Your task to perform on an android device: toggle notification dots Image 0: 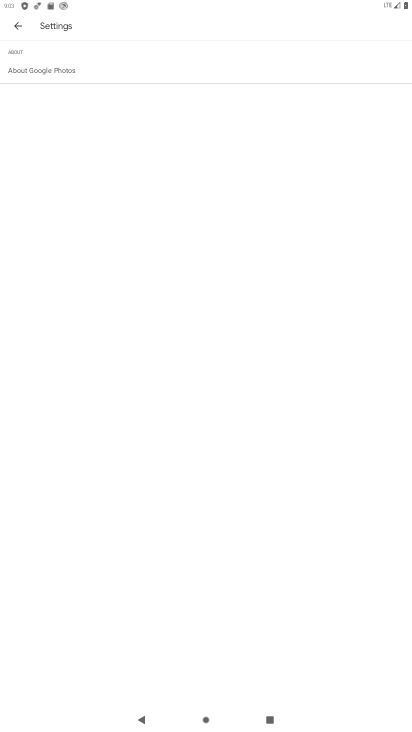
Step 0: press home button
Your task to perform on an android device: toggle notification dots Image 1: 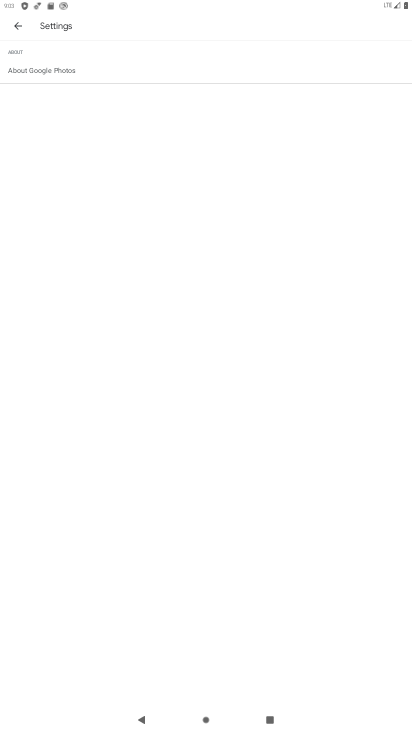
Step 1: press home button
Your task to perform on an android device: toggle notification dots Image 2: 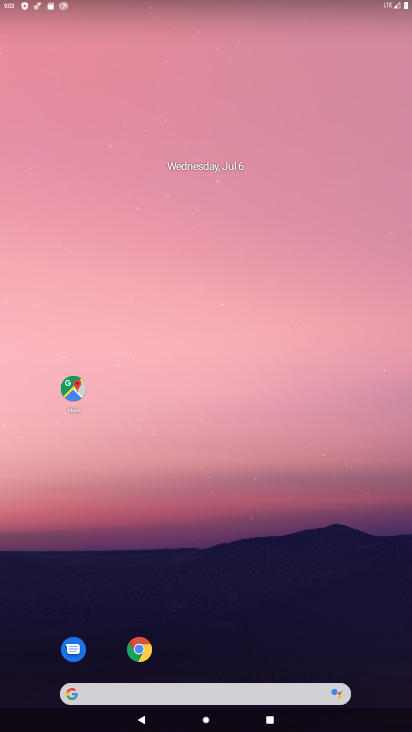
Step 2: drag from (188, 672) to (189, 183)
Your task to perform on an android device: toggle notification dots Image 3: 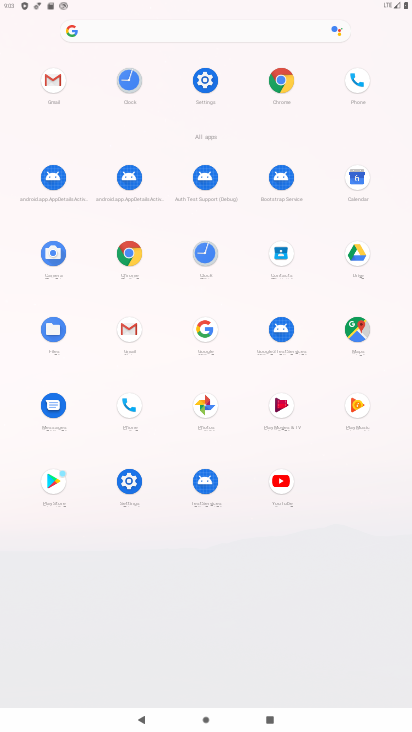
Step 3: click (200, 76)
Your task to perform on an android device: toggle notification dots Image 4: 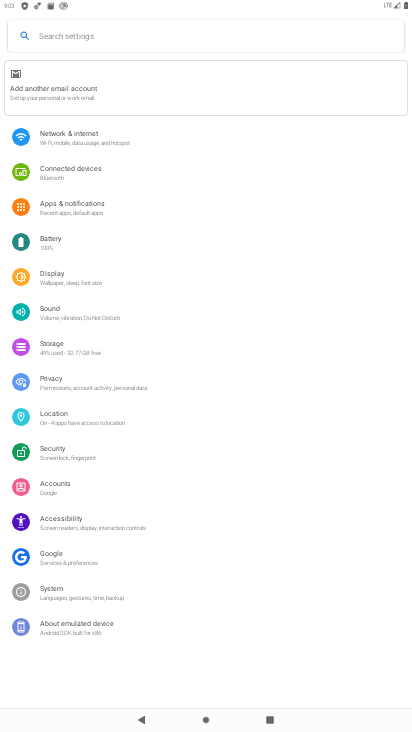
Step 4: click (70, 210)
Your task to perform on an android device: toggle notification dots Image 5: 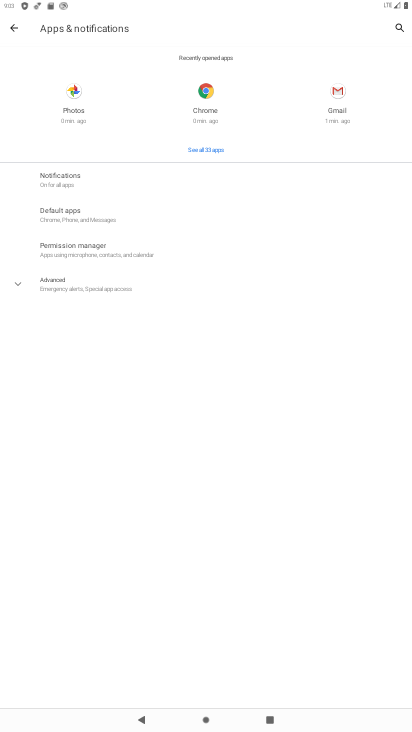
Step 5: click (55, 181)
Your task to perform on an android device: toggle notification dots Image 6: 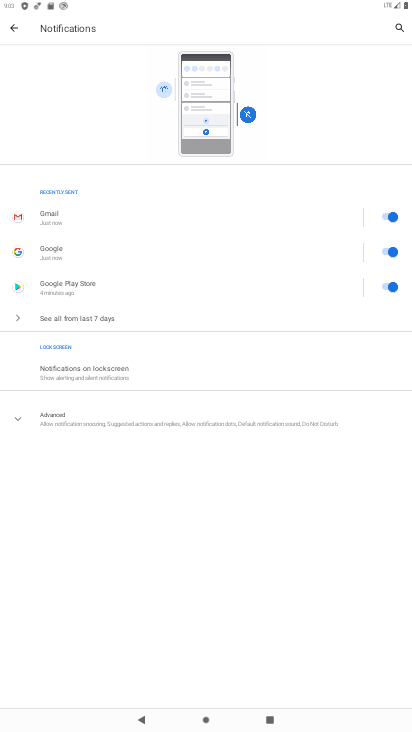
Step 6: click (131, 419)
Your task to perform on an android device: toggle notification dots Image 7: 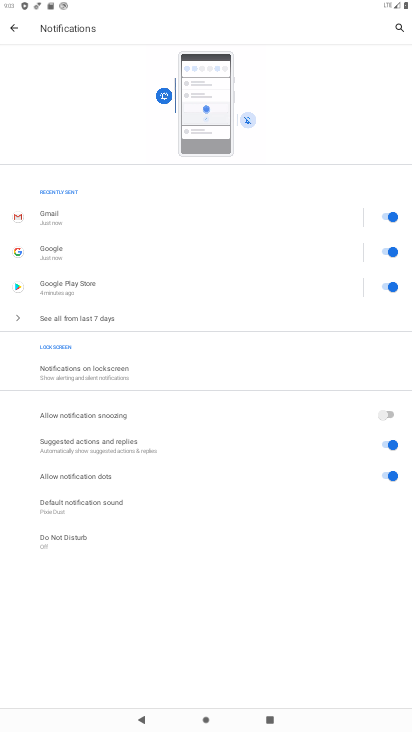
Step 7: click (385, 480)
Your task to perform on an android device: toggle notification dots Image 8: 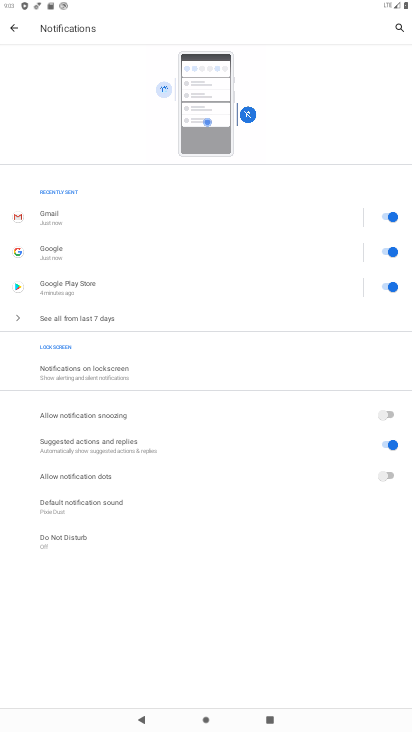
Step 8: task complete